Your task to perform on an android device: Do I have any events today? Image 0: 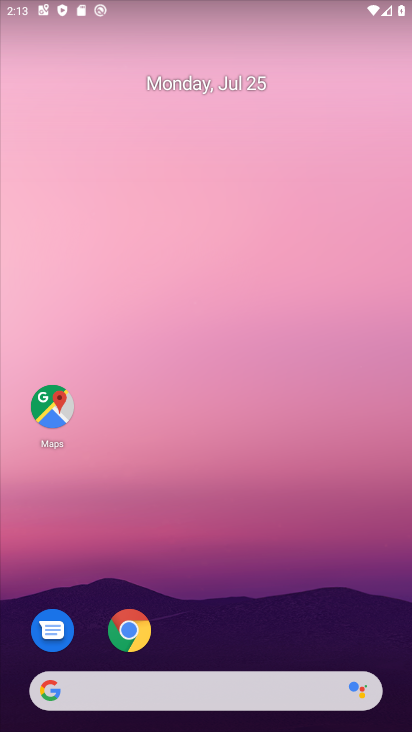
Step 0: drag from (257, 634) to (232, 102)
Your task to perform on an android device: Do I have any events today? Image 1: 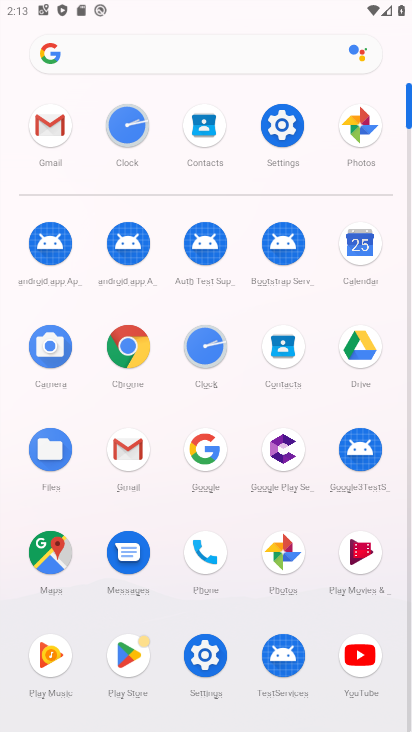
Step 1: click (189, 129)
Your task to perform on an android device: Do I have any events today? Image 2: 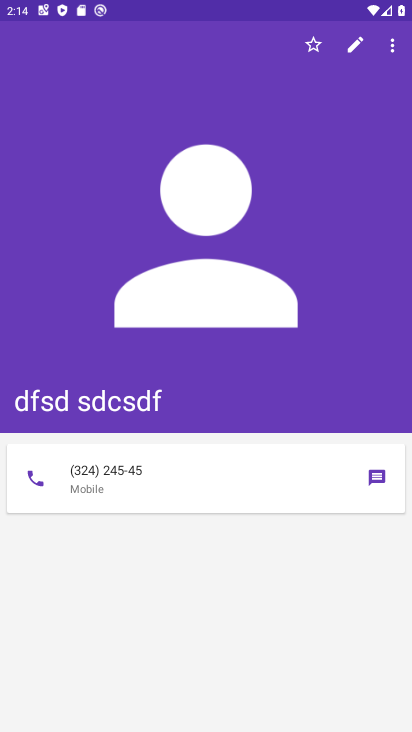
Step 2: task complete